Your task to perform on an android device: View the shopping cart on newegg.com. Add "duracell triple a" to the cart on newegg.com Image 0: 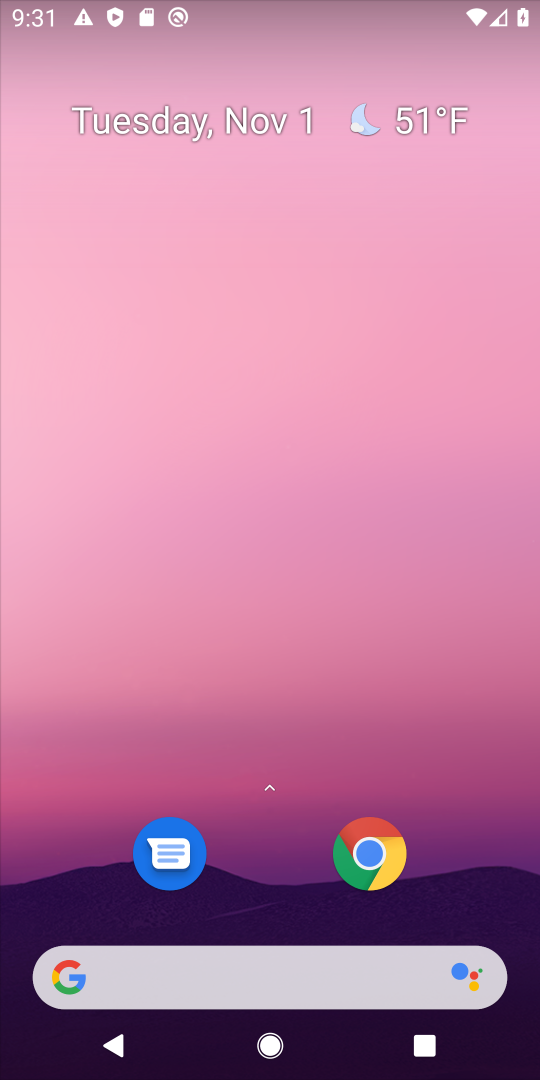
Step 0: click (286, 972)
Your task to perform on an android device: View the shopping cart on newegg.com. Add "duracell triple a" to the cart on newegg.com Image 1: 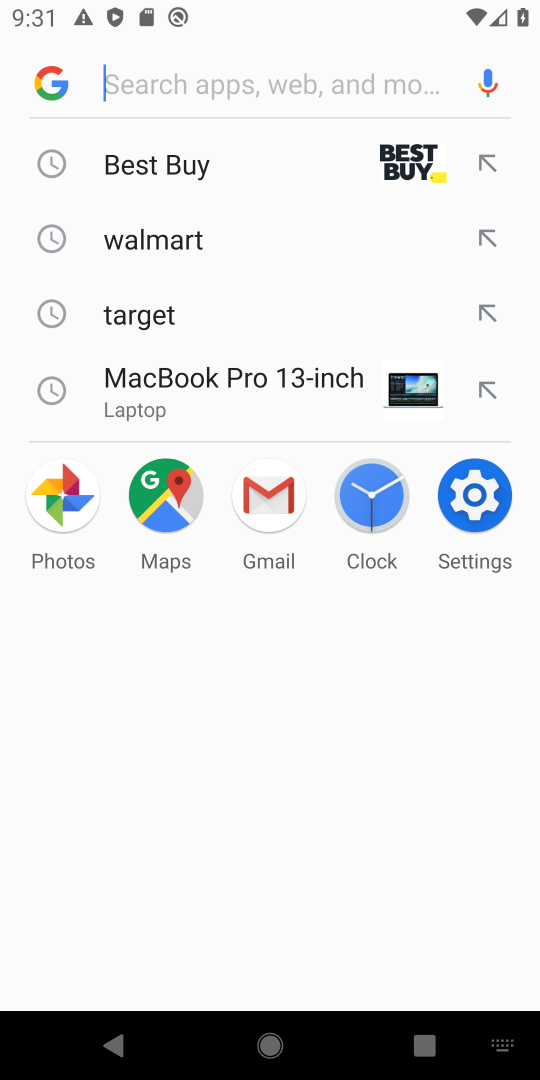
Step 1: type "newwg"
Your task to perform on an android device: View the shopping cart on newegg.com. Add "duracell triple a" to the cart on newegg.com Image 2: 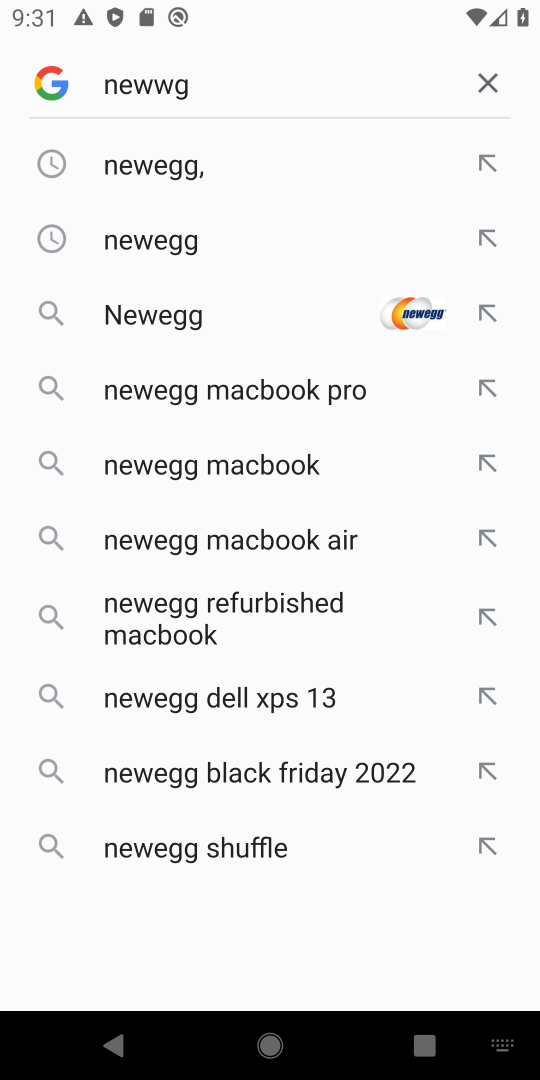
Step 2: click (273, 184)
Your task to perform on an android device: View the shopping cart on newegg.com. Add "duracell triple a" to the cart on newegg.com Image 3: 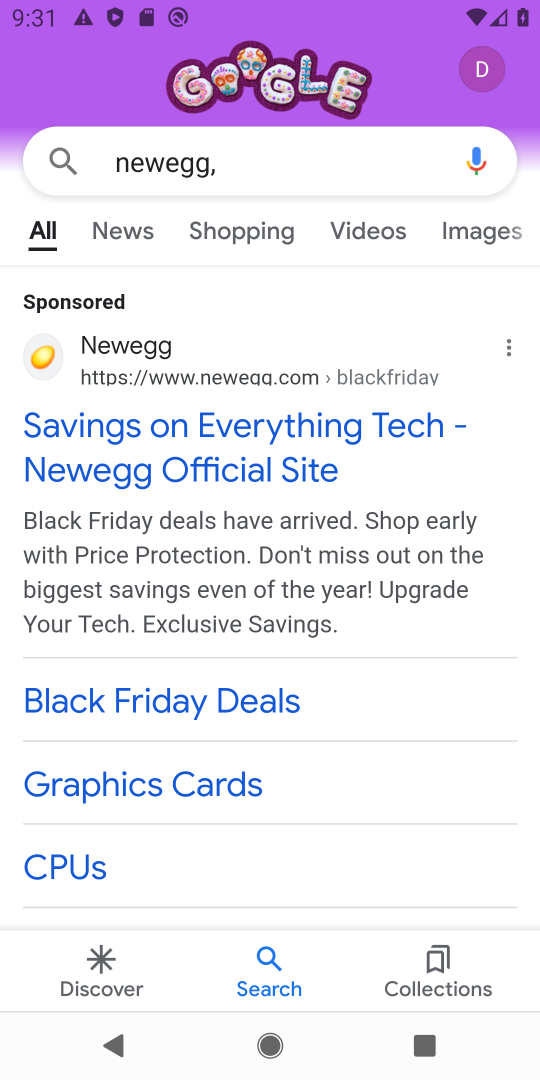
Step 3: click (203, 505)
Your task to perform on an android device: View the shopping cart on newegg.com. Add "duracell triple a" to the cart on newegg.com Image 4: 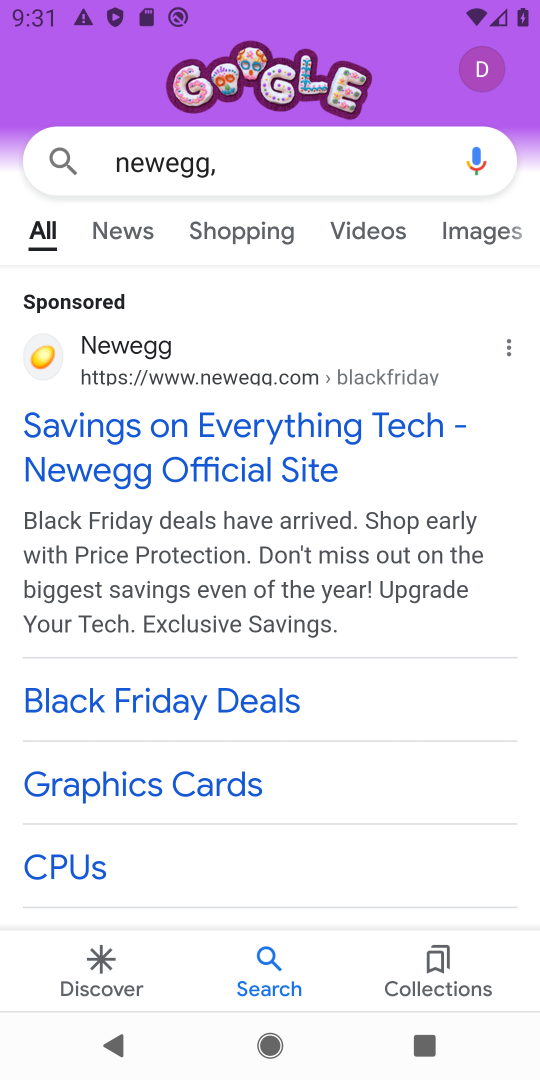
Step 4: click (191, 491)
Your task to perform on an android device: View the shopping cart on newegg.com. Add "duracell triple a" to the cart on newegg.com Image 5: 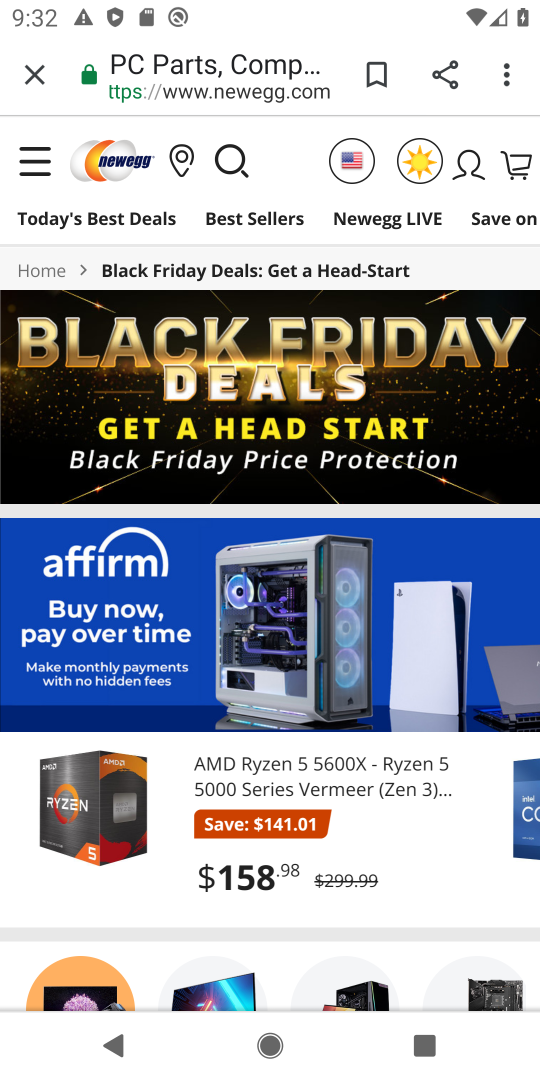
Step 5: click (223, 143)
Your task to perform on an android device: View the shopping cart on newegg.com. Add "duracell triple a" to the cart on newegg.com Image 6: 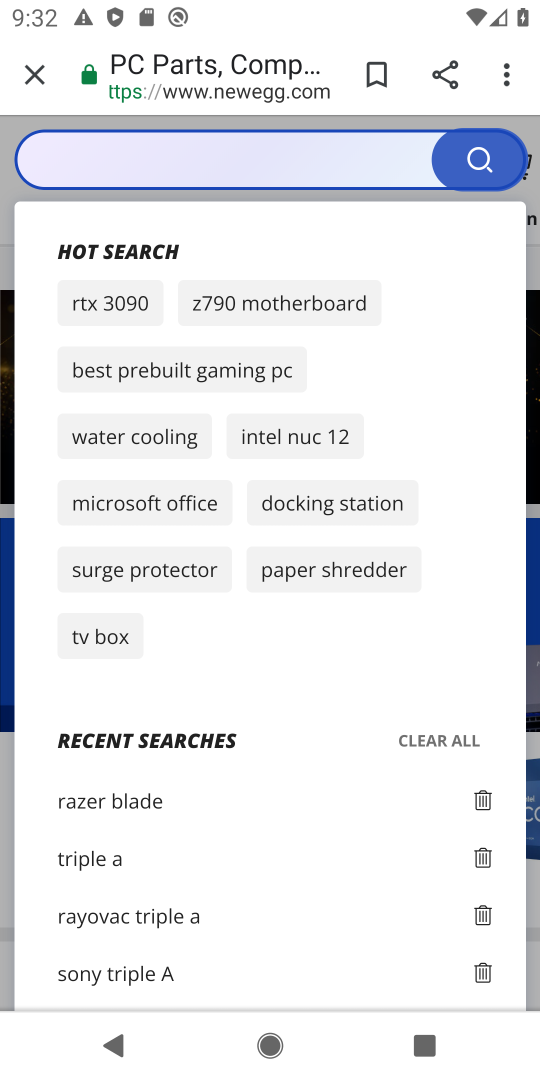
Step 6: click (223, 143)
Your task to perform on an android device: View the shopping cart on newegg.com. Add "duracell triple a" to the cart on newegg.com Image 7: 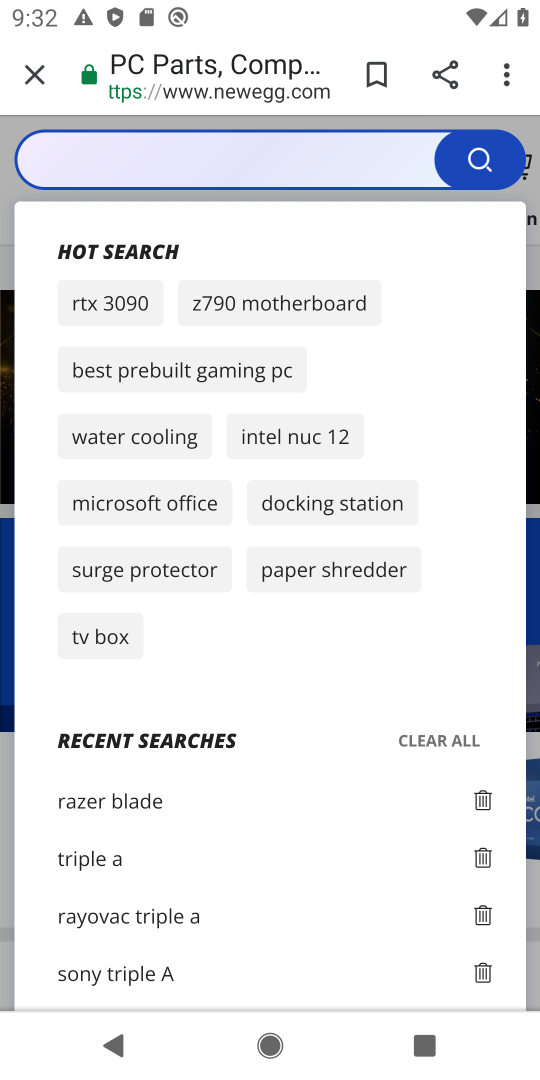
Step 7: click (196, 159)
Your task to perform on an android device: View the shopping cart on newegg.com. Add "duracell triple a" to the cart on newegg.com Image 8: 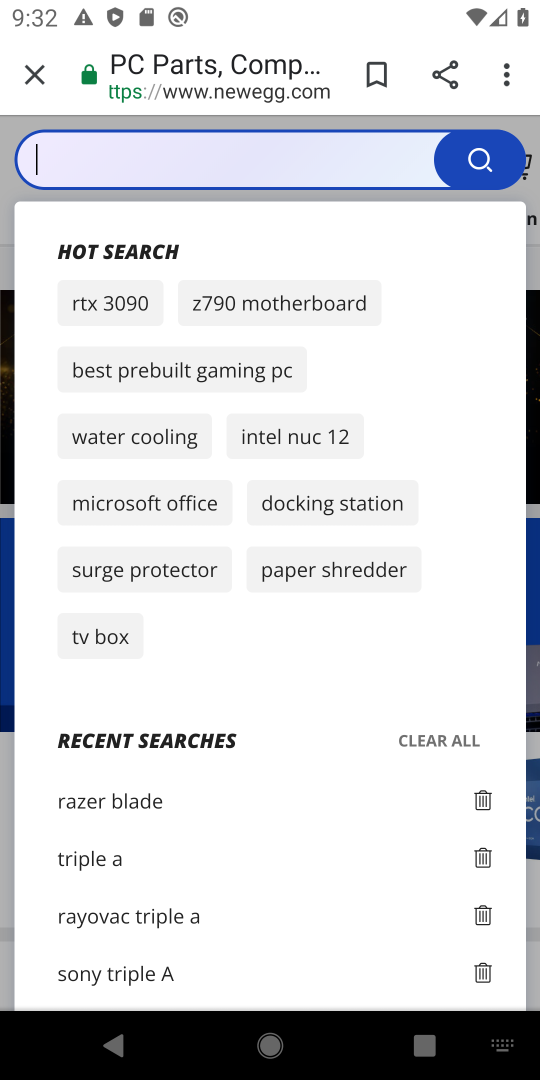
Step 8: type "duracell"
Your task to perform on an android device: View the shopping cart on newegg.com. Add "duracell triple a" to the cart on newegg.com Image 9: 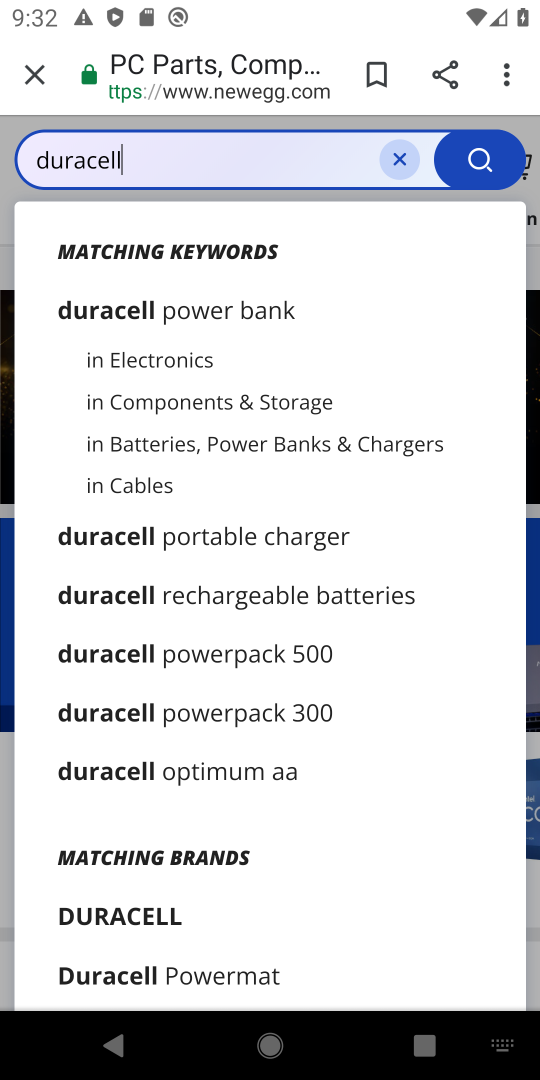
Step 9: click (468, 153)
Your task to perform on an android device: View the shopping cart on newegg.com. Add "duracell triple a" to the cart on newegg.com Image 10: 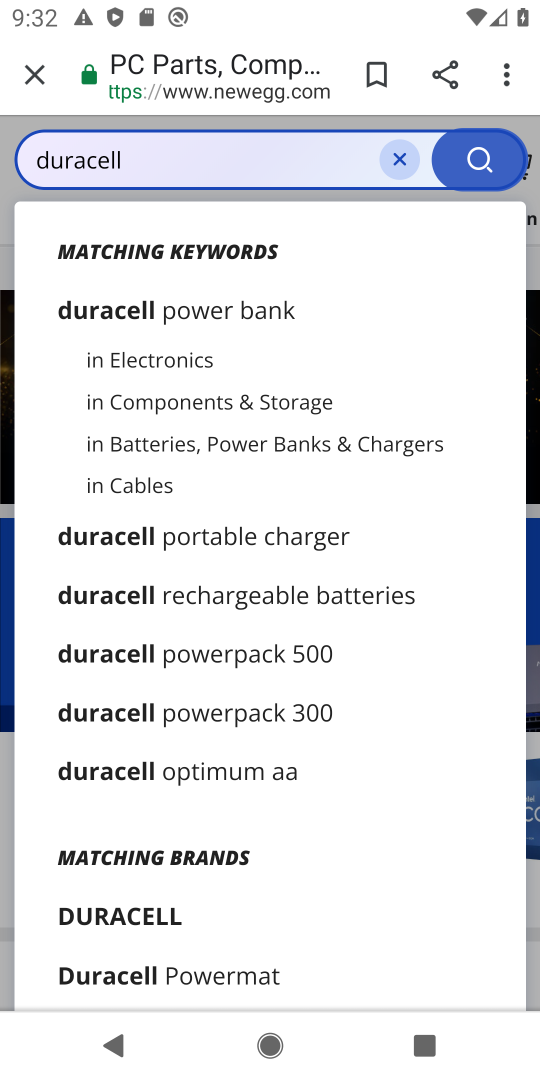
Step 10: click (474, 153)
Your task to perform on an android device: View the shopping cart on newegg.com. Add "duracell triple a" to the cart on newegg.com Image 11: 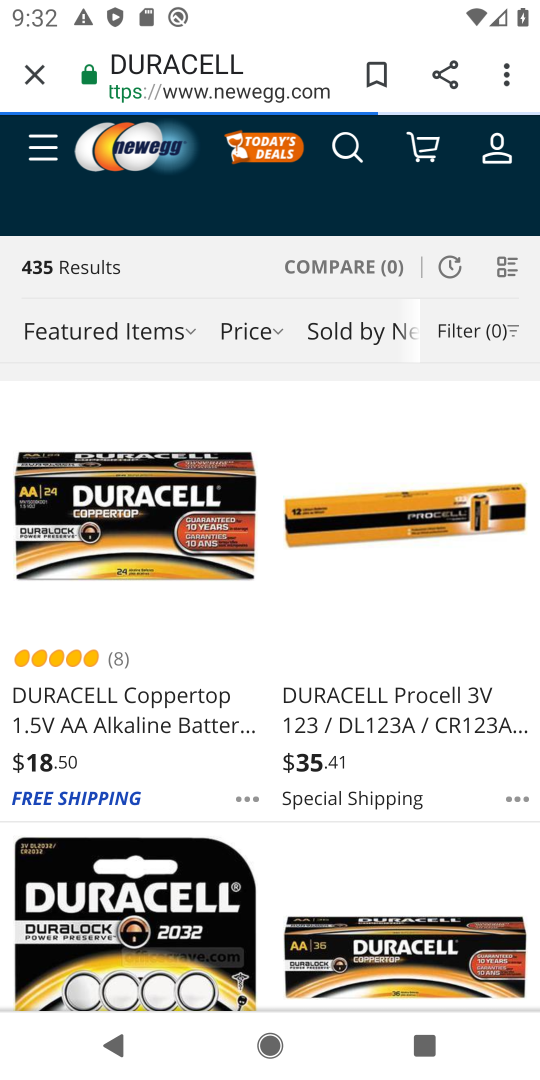
Step 11: click (175, 695)
Your task to perform on an android device: View the shopping cart on newegg.com. Add "duracell triple a" to the cart on newegg.com Image 12: 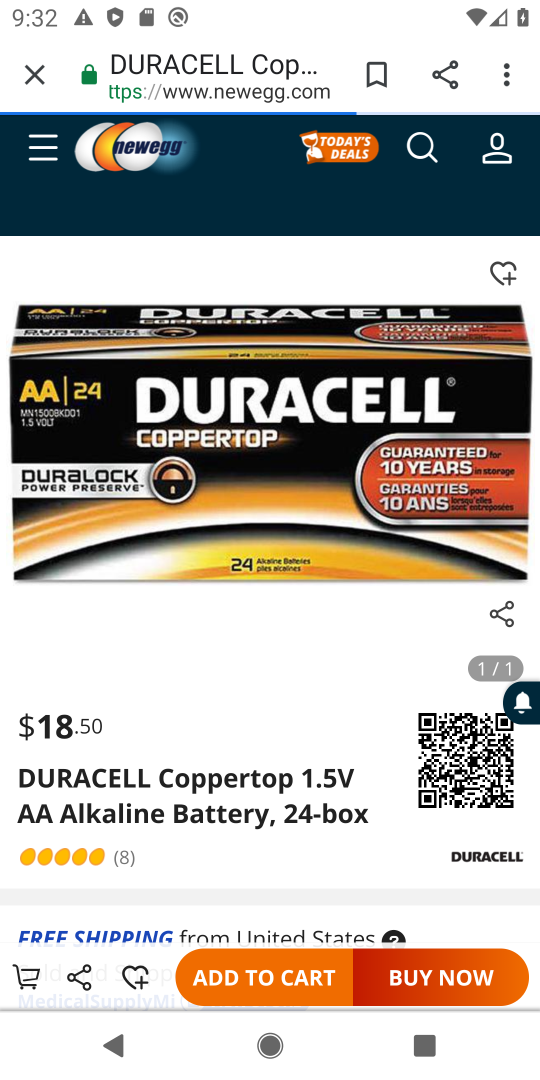
Step 12: click (248, 971)
Your task to perform on an android device: View the shopping cart on newegg.com. Add "duracell triple a" to the cart on newegg.com Image 13: 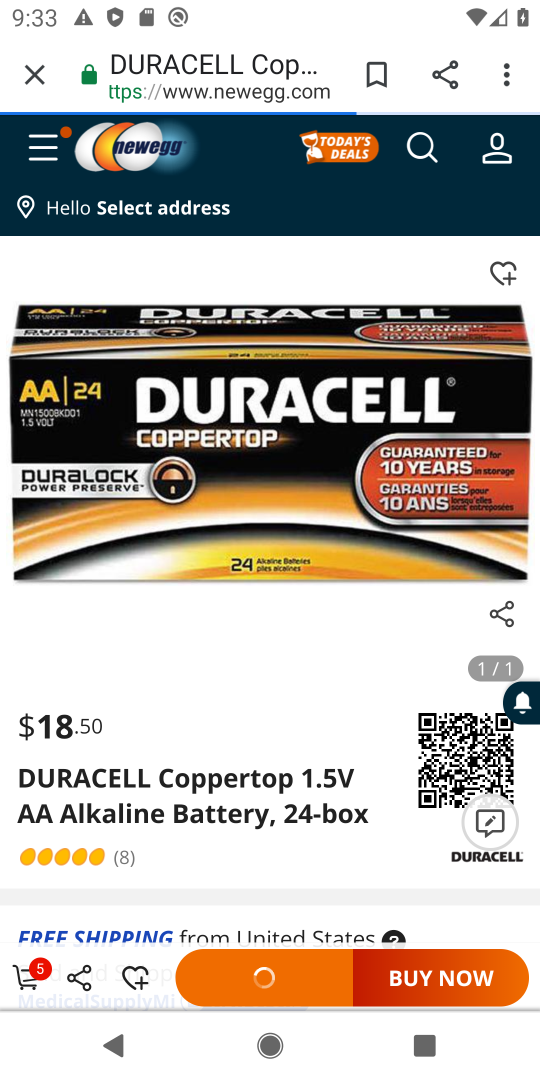
Step 13: task complete